Your task to perform on an android device: check the backup settings in the google photos Image 0: 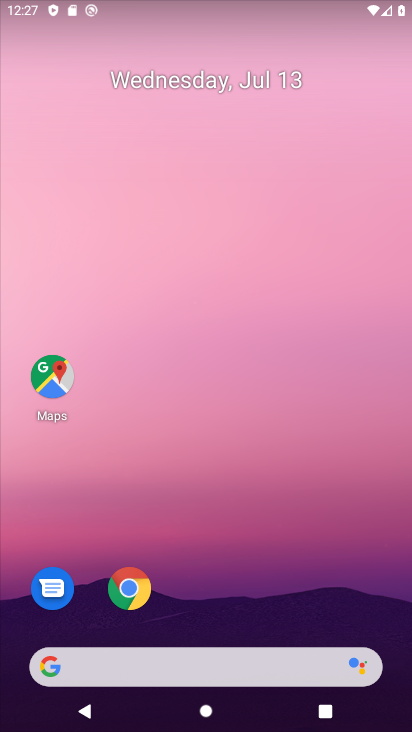
Step 0: drag from (196, 600) to (223, 179)
Your task to perform on an android device: check the backup settings in the google photos Image 1: 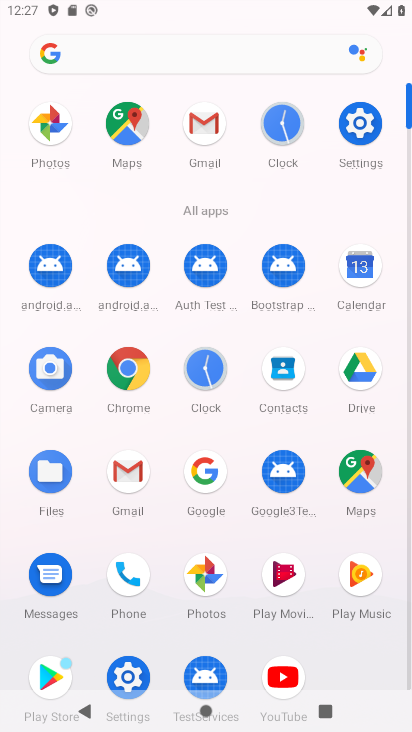
Step 1: click (205, 577)
Your task to perform on an android device: check the backup settings in the google photos Image 2: 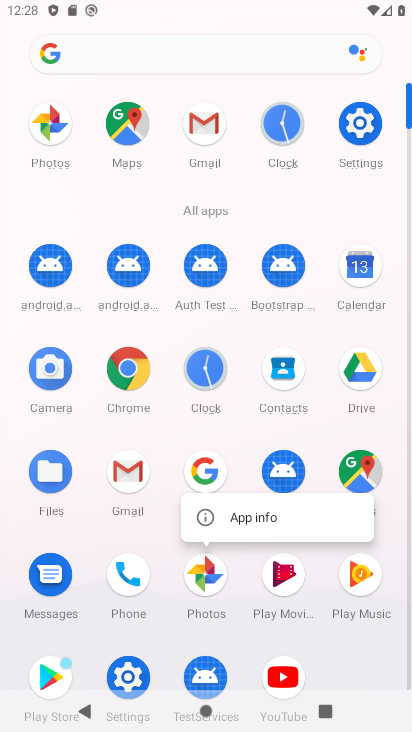
Step 2: click (242, 518)
Your task to perform on an android device: check the backup settings in the google photos Image 3: 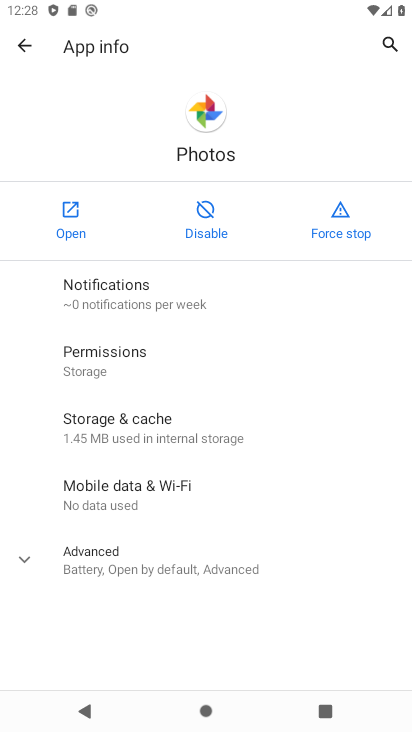
Step 3: click (58, 205)
Your task to perform on an android device: check the backup settings in the google photos Image 4: 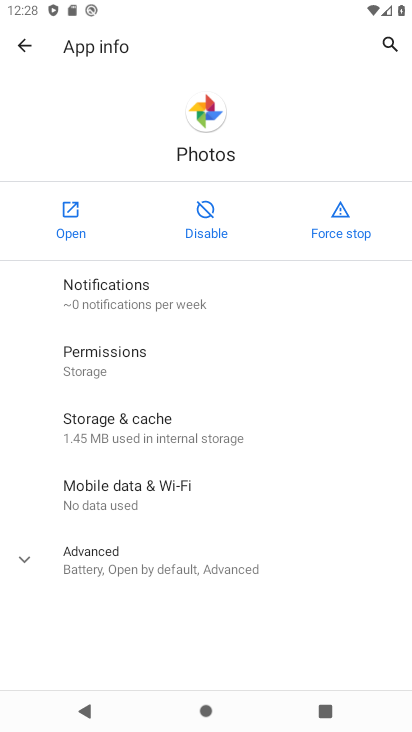
Step 4: click (58, 205)
Your task to perform on an android device: check the backup settings in the google photos Image 5: 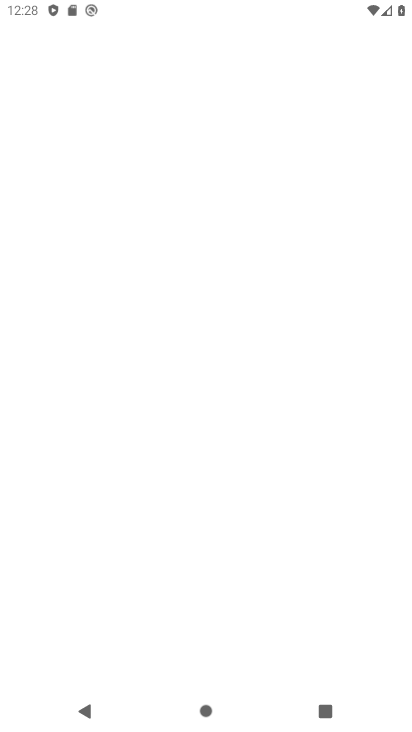
Step 5: drag from (185, 556) to (233, 353)
Your task to perform on an android device: check the backup settings in the google photos Image 6: 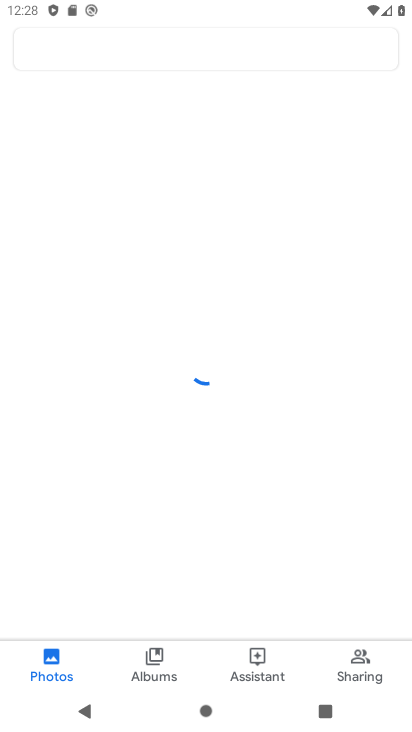
Step 6: drag from (198, 544) to (241, 288)
Your task to perform on an android device: check the backup settings in the google photos Image 7: 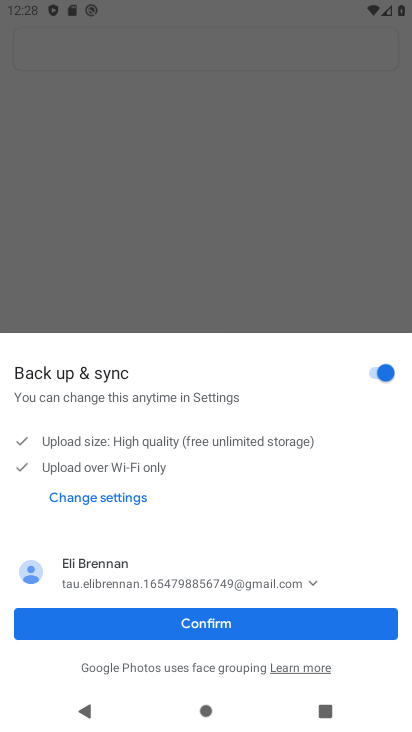
Step 7: click (212, 631)
Your task to perform on an android device: check the backup settings in the google photos Image 8: 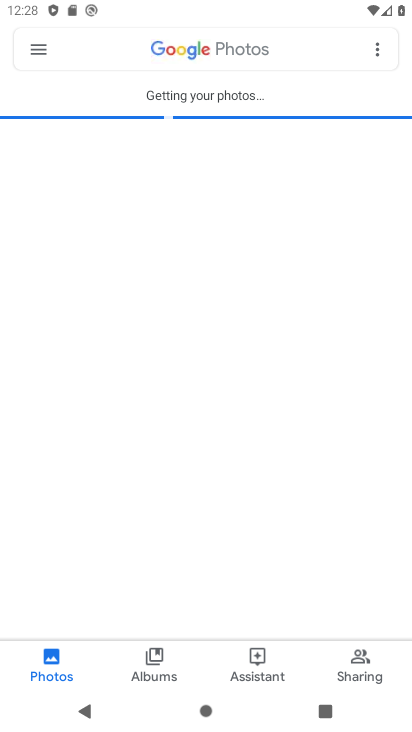
Step 8: drag from (163, 501) to (219, 209)
Your task to perform on an android device: check the backup settings in the google photos Image 9: 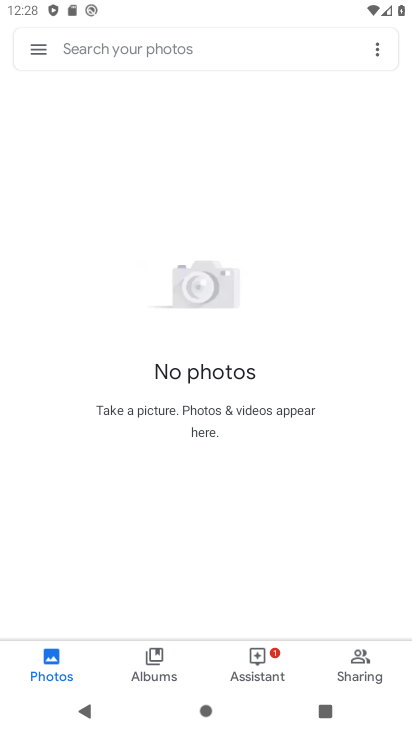
Step 9: click (217, 304)
Your task to perform on an android device: check the backup settings in the google photos Image 10: 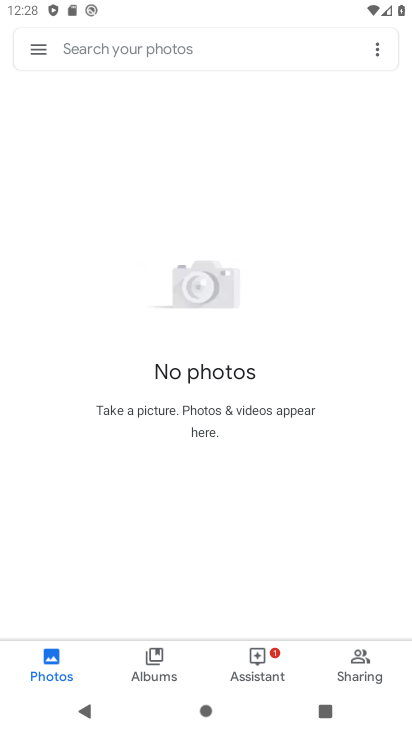
Step 10: click (216, 305)
Your task to perform on an android device: check the backup settings in the google photos Image 11: 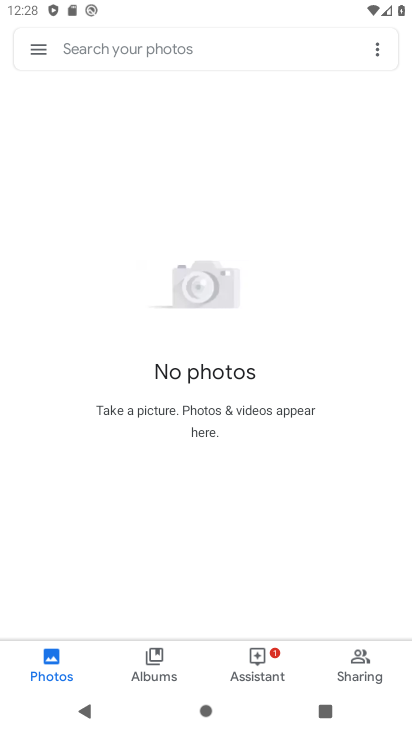
Step 11: click (202, 224)
Your task to perform on an android device: check the backup settings in the google photos Image 12: 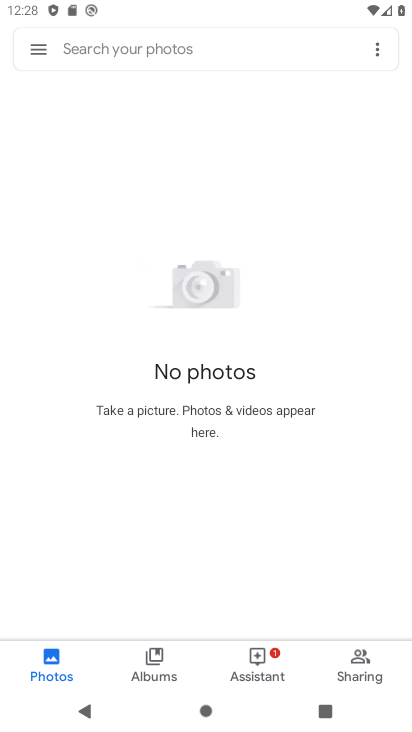
Step 12: click (202, 224)
Your task to perform on an android device: check the backup settings in the google photos Image 13: 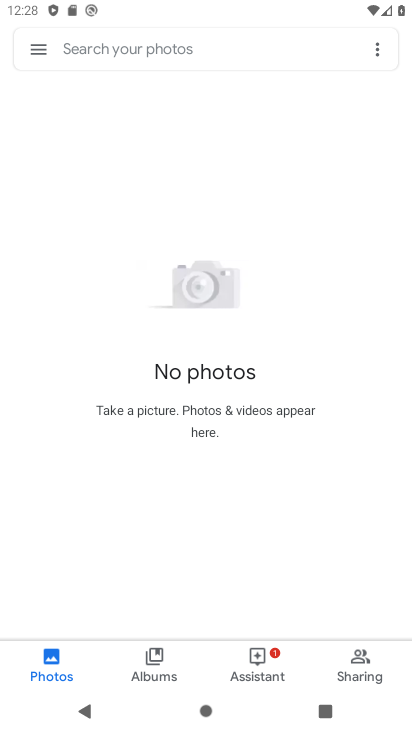
Step 13: click (200, 300)
Your task to perform on an android device: check the backup settings in the google photos Image 14: 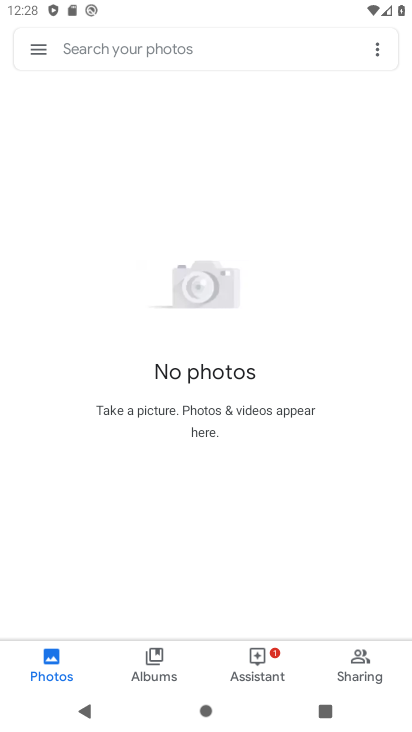
Step 14: click (207, 318)
Your task to perform on an android device: check the backup settings in the google photos Image 15: 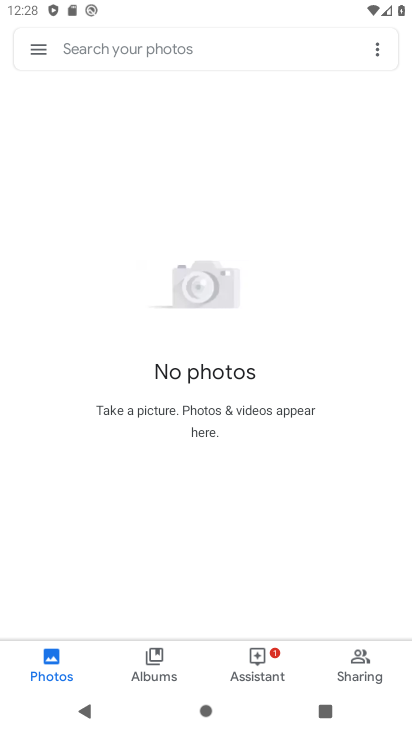
Step 15: click (206, 319)
Your task to perform on an android device: check the backup settings in the google photos Image 16: 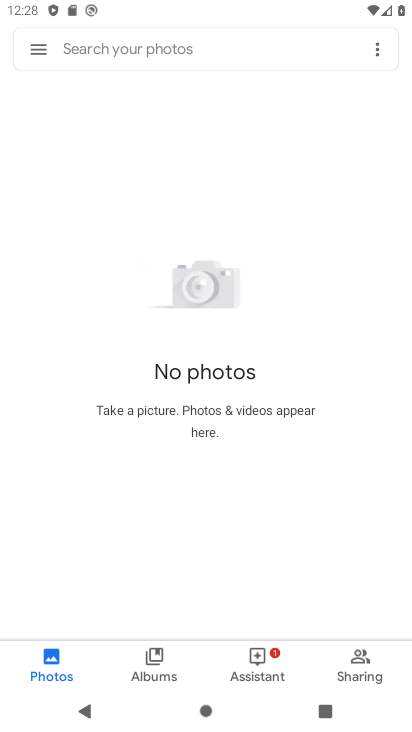
Step 16: click (216, 240)
Your task to perform on an android device: check the backup settings in the google photos Image 17: 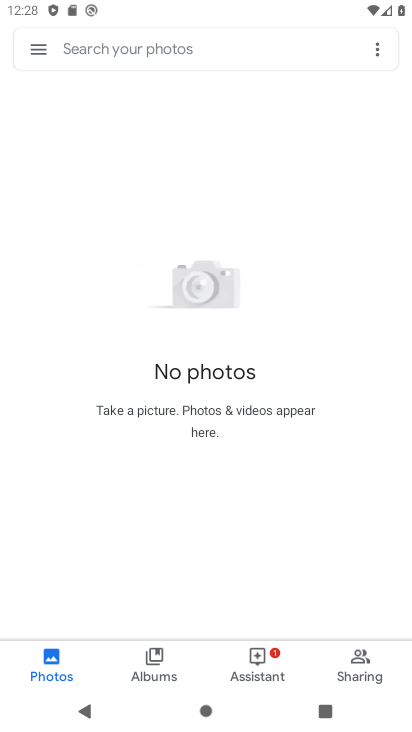
Step 17: click (216, 240)
Your task to perform on an android device: check the backup settings in the google photos Image 18: 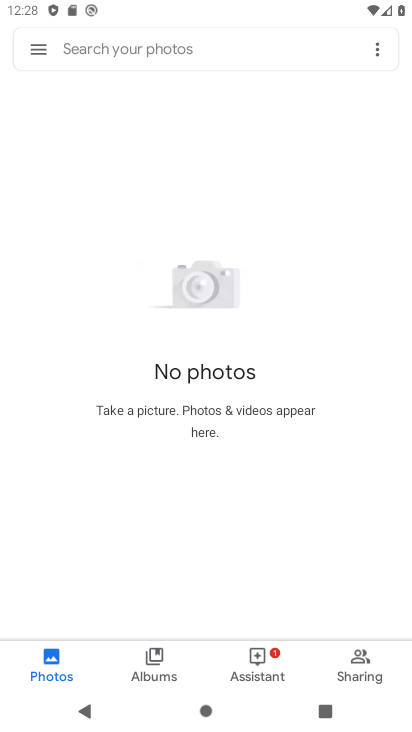
Step 18: drag from (170, 512) to (207, 405)
Your task to perform on an android device: check the backup settings in the google photos Image 19: 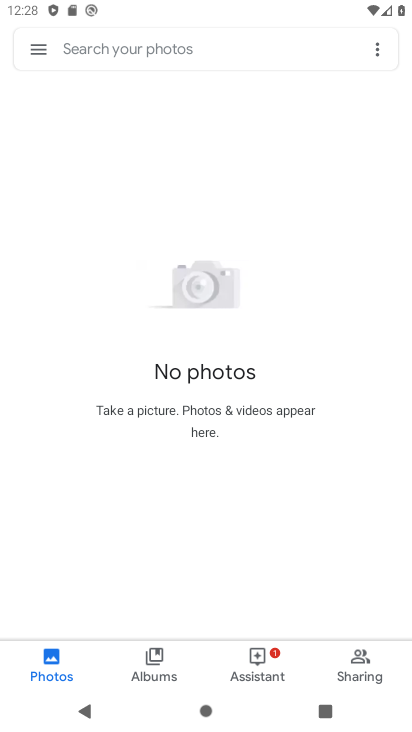
Step 19: click (214, 225)
Your task to perform on an android device: check the backup settings in the google photos Image 20: 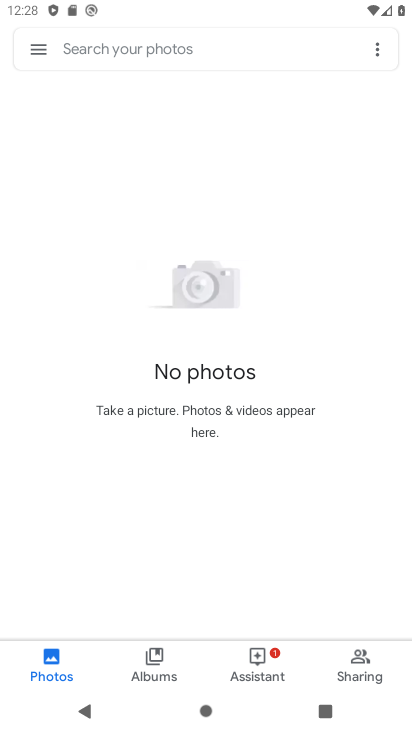
Step 20: click (203, 485)
Your task to perform on an android device: check the backup settings in the google photos Image 21: 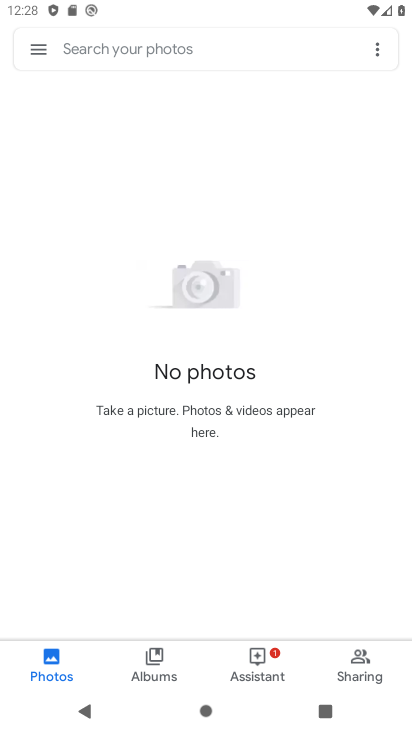
Step 21: click (234, 205)
Your task to perform on an android device: check the backup settings in the google photos Image 22: 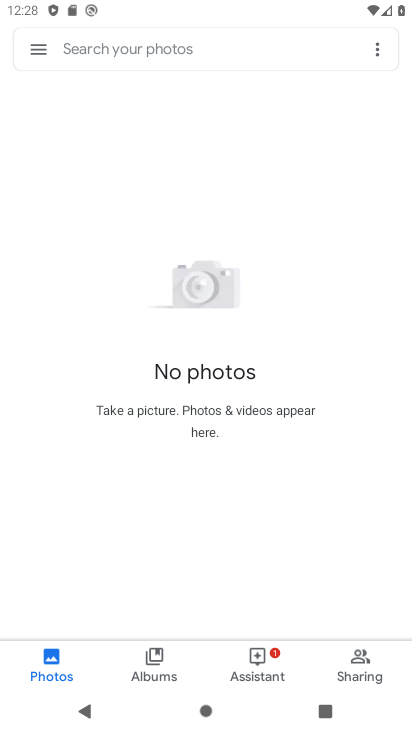
Step 22: click (36, 54)
Your task to perform on an android device: check the backup settings in the google photos Image 23: 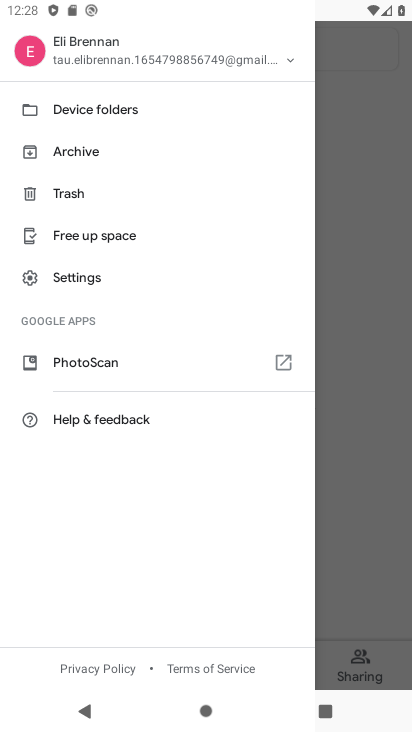
Step 23: click (84, 281)
Your task to perform on an android device: check the backup settings in the google photos Image 24: 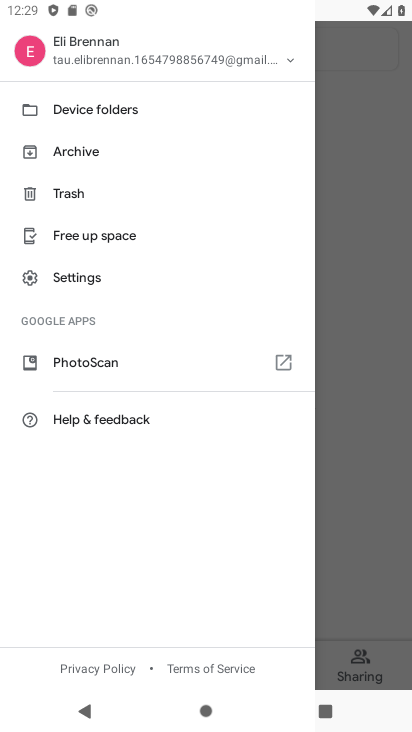
Step 24: drag from (196, 310) to (202, 264)
Your task to perform on an android device: check the backup settings in the google photos Image 25: 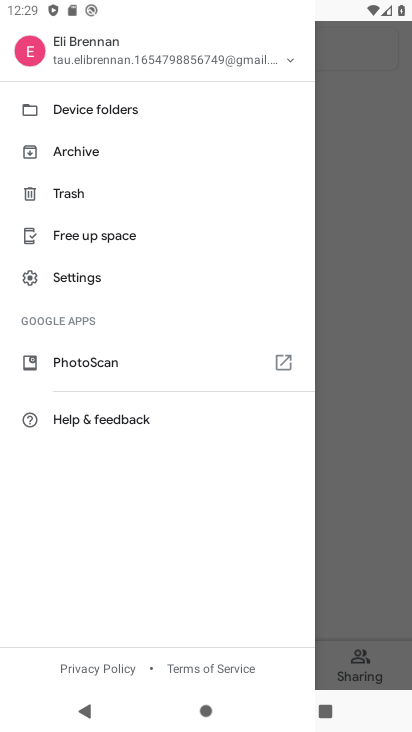
Step 25: click (77, 273)
Your task to perform on an android device: check the backup settings in the google photos Image 26: 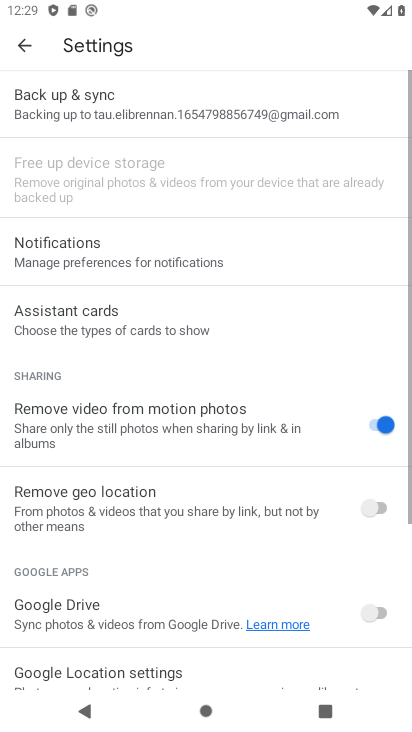
Step 26: drag from (250, 515) to (267, 214)
Your task to perform on an android device: check the backup settings in the google photos Image 27: 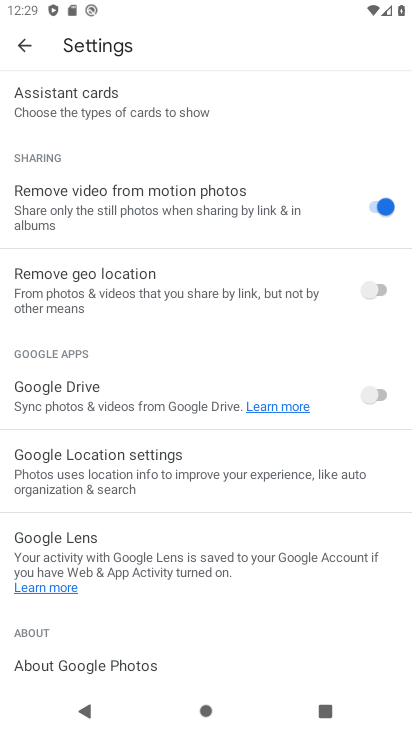
Step 27: drag from (216, 236) to (208, 673)
Your task to perform on an android device: check the backup settings in the google photos Image 28: 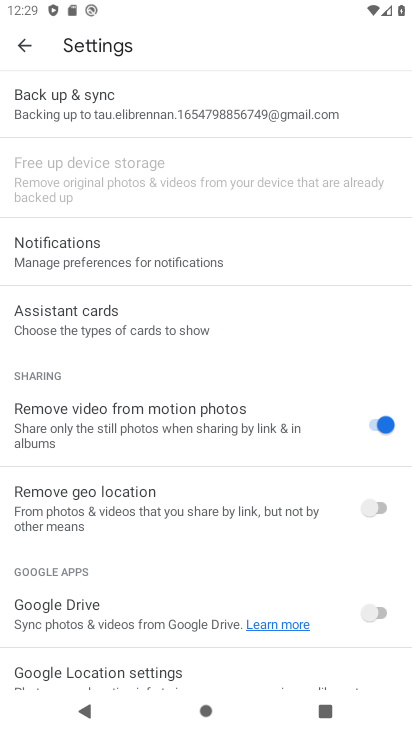
Step 28: click (83, 106)
Your task to perform on an android device: check the backup settings in the google photos Image 29: 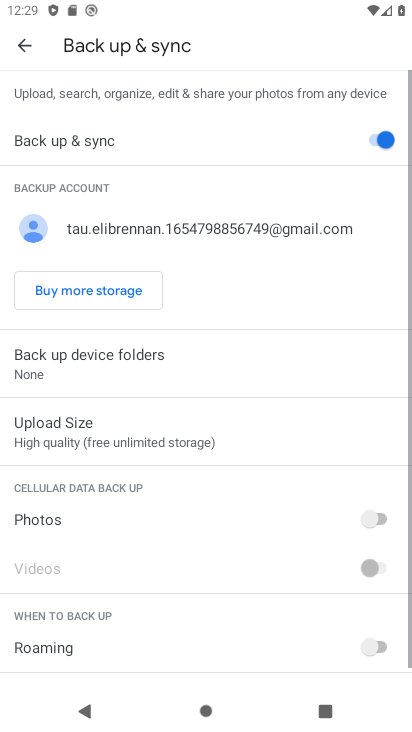
Step 29: task complete